Your task to perform on an android device: Toggle the flashlight Image 0: 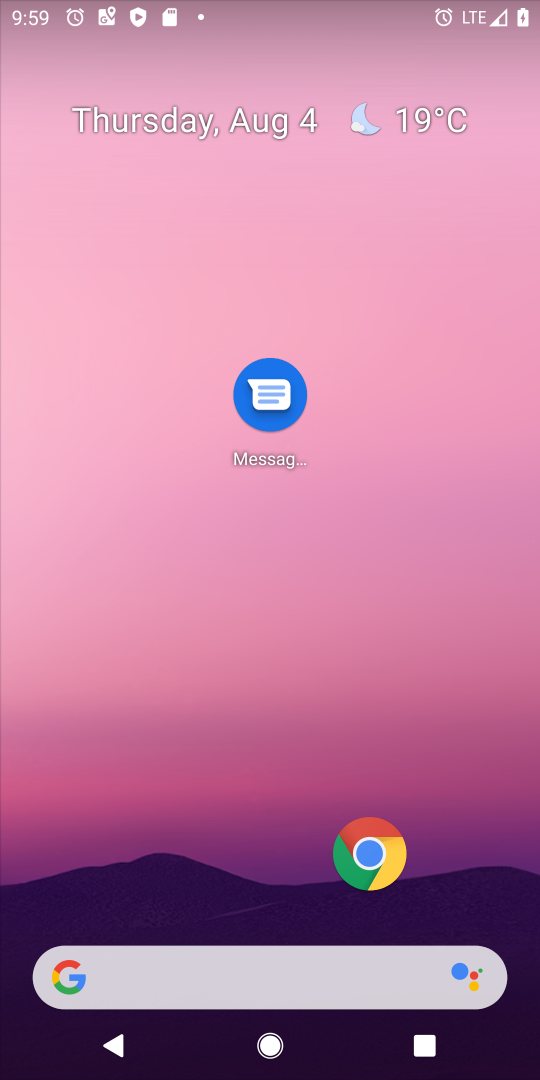
Step 0: drag from (303, 63) to (359, 595)
Your task to perform on an android device: Toggle the flashlight Image 1: 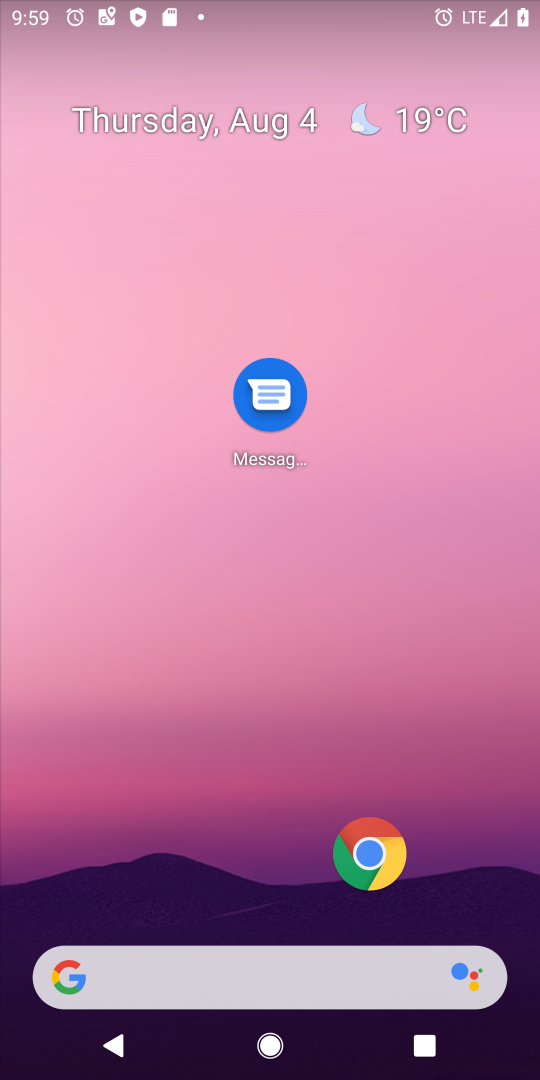
Step 1: drag from (316, 4) to (343, 875)
Your task to perform on an android device: Toggle the flashlight Image 2: 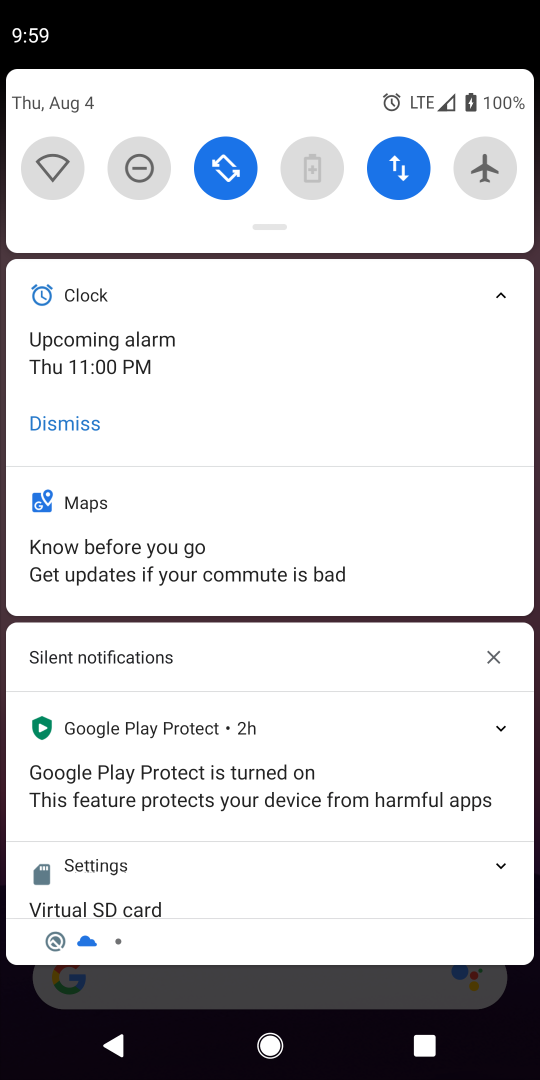
Step 2: drag from (223, 179) to (289, 740)
Your task to perform on an android device: Toggle the flashlight Image 3: 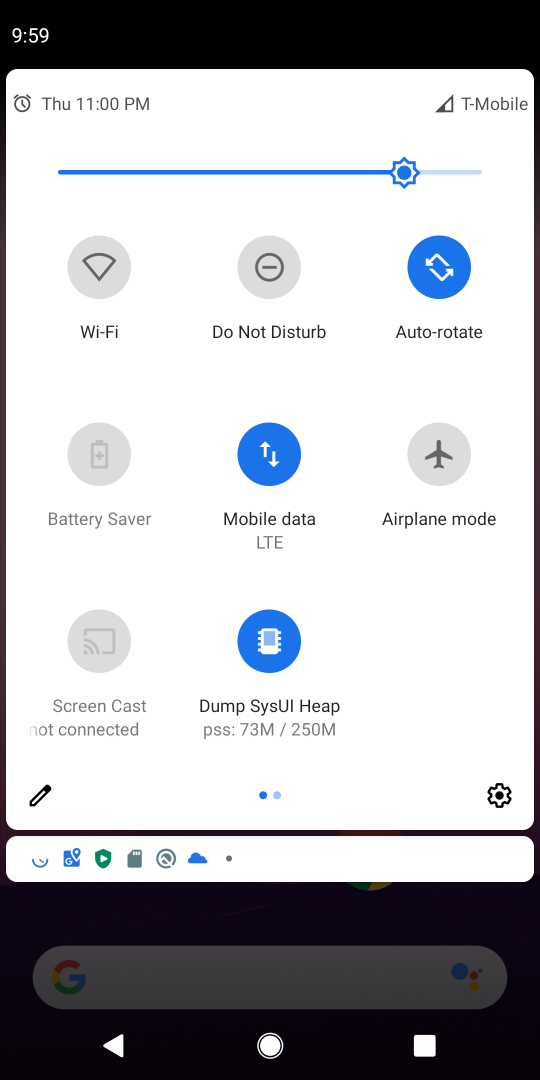
Step 3: drag from (443, 565) to (0, 790)
Your task to perform on an android device: Toggle the flashlight Image 4: 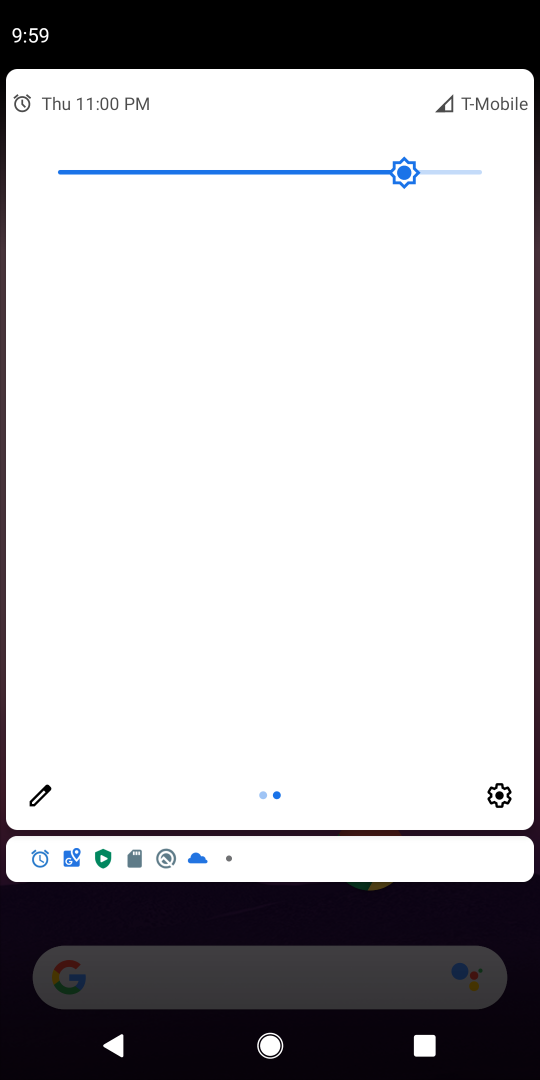
Step 4: click (33, 799)
Your task to perform on an android device: Toggle the flashlight Image 5: 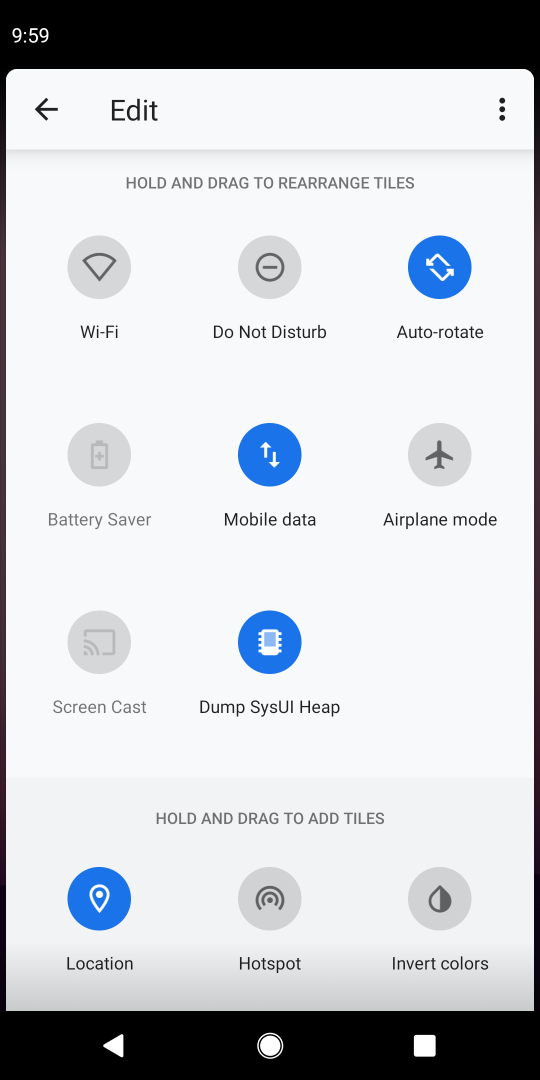
Step 5: task complete